Your task to perform on an android device: Show me the alarms in the clock app Image 0: 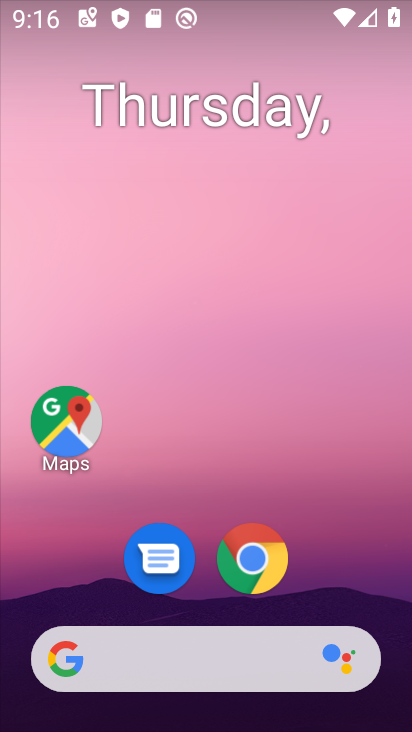
Step 0: drag from (381, 609) to (348, 102)
Your task to perform on an android device: Show me the alarms in the clock app Image 1: 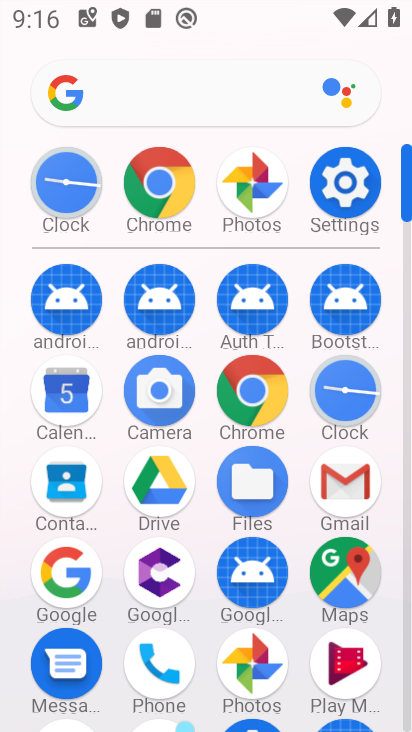
Step 1: click (344, 390)
Your task to perform on an android device: Show me the alarms in the clock app Image 2: 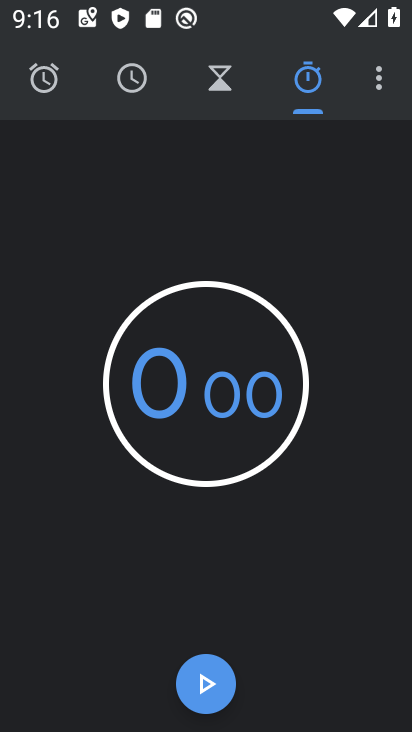
Step 2: click (50, 73)
Your task to perform on an android device: Show me the alarms in the clock app Image 3: 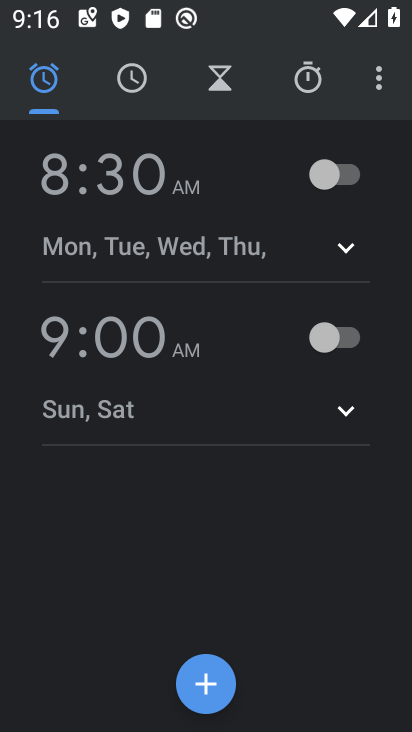
Step 3: click (67, 162)
Your task to perform on an android device: Show me the alarms in the clock app Image 4: 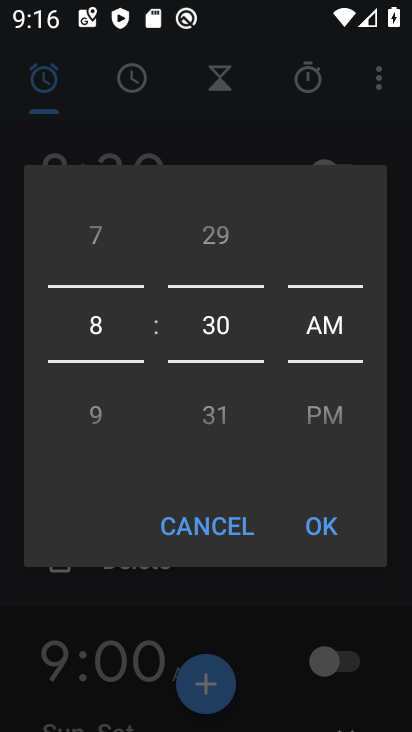
Step 4: drag from (101, 258) to (89, 501)
Your task to perform on an android device: Show me the alarms in the clock app Image 5: 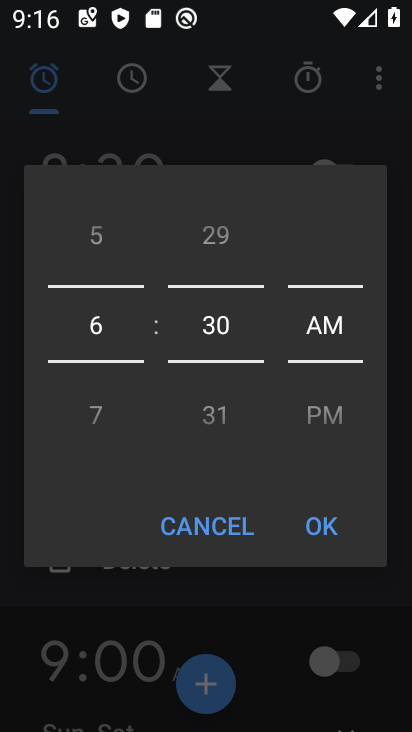
Step 5: click (325, 525)
Your task to perform on an android device: Show me the alarms in the clock app Image 6: 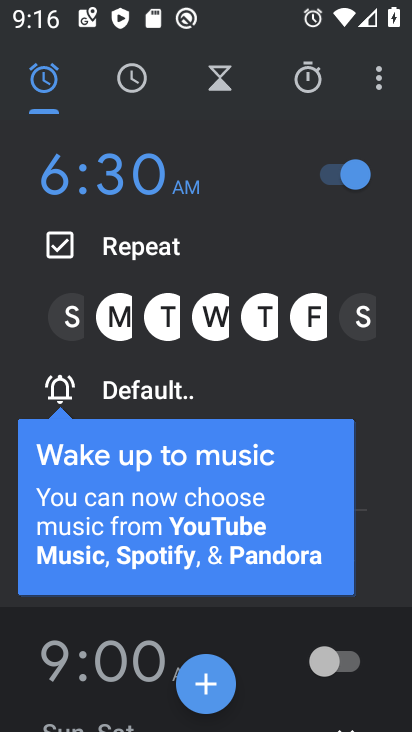
Step 6: click (357, 311)
Your task to perform on an android device: Show me the alarms in the clock app Image 7: 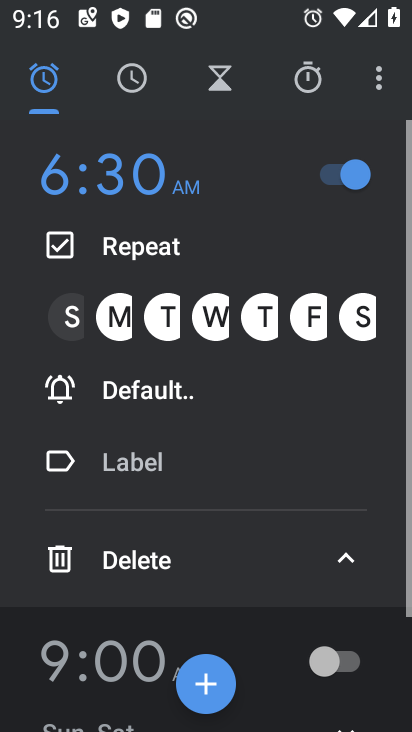
Step 7: click (349, 555)
Your task to perform on an android device: Show me the alarms in the clock app Image 8: 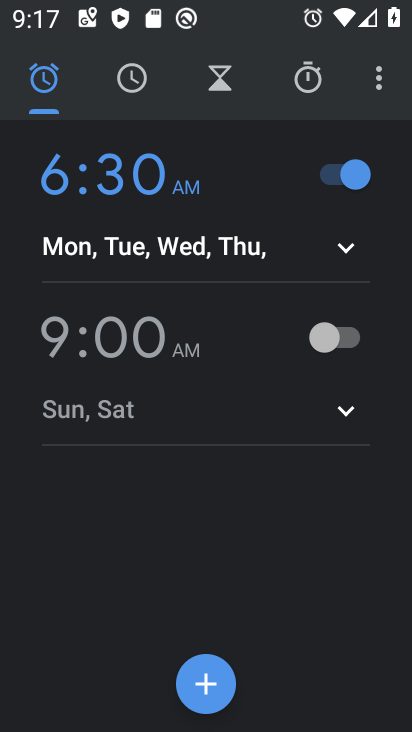
Step 8: task complete